Your task to perform on an android device: turn on wifi Image 0: 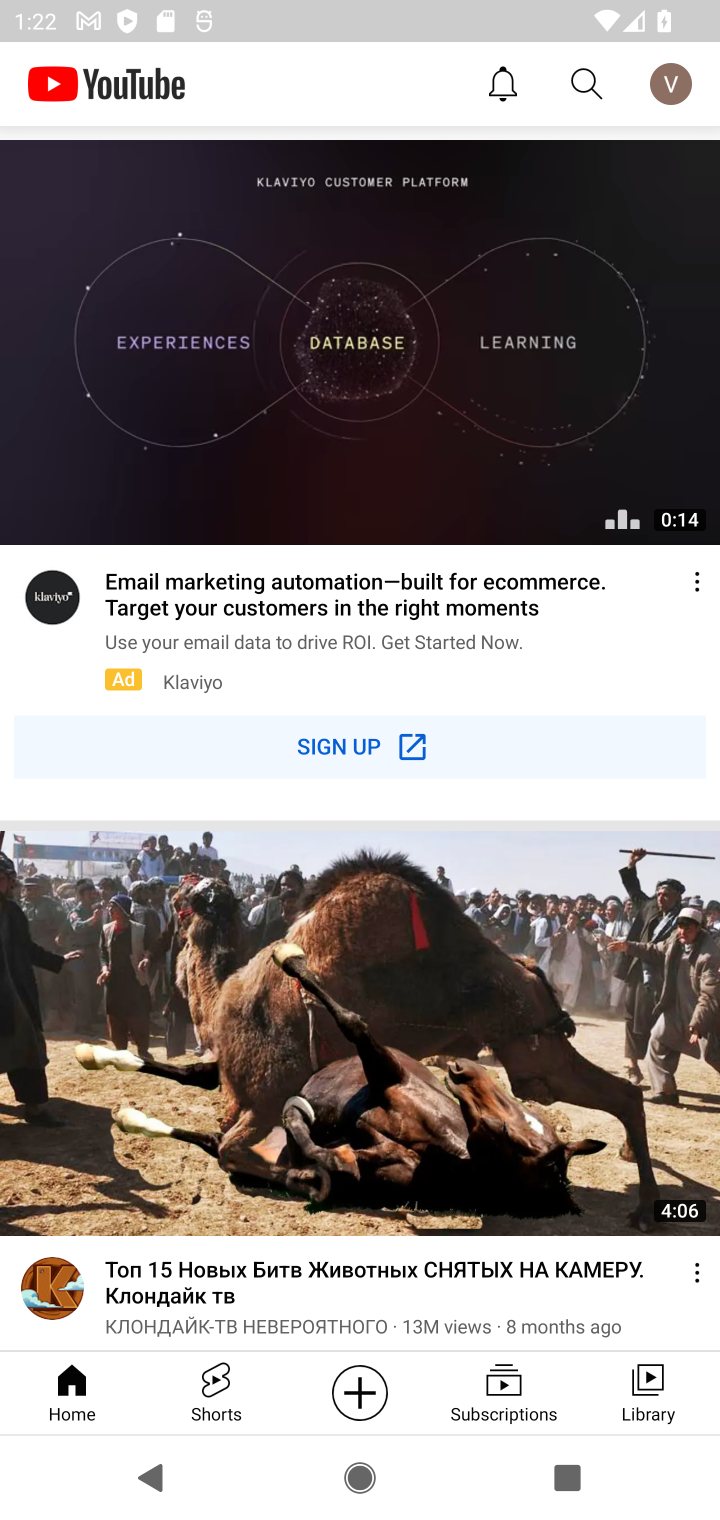
Step 0: press home button
Your task to perform on an android device: turn on wifi Image 1: 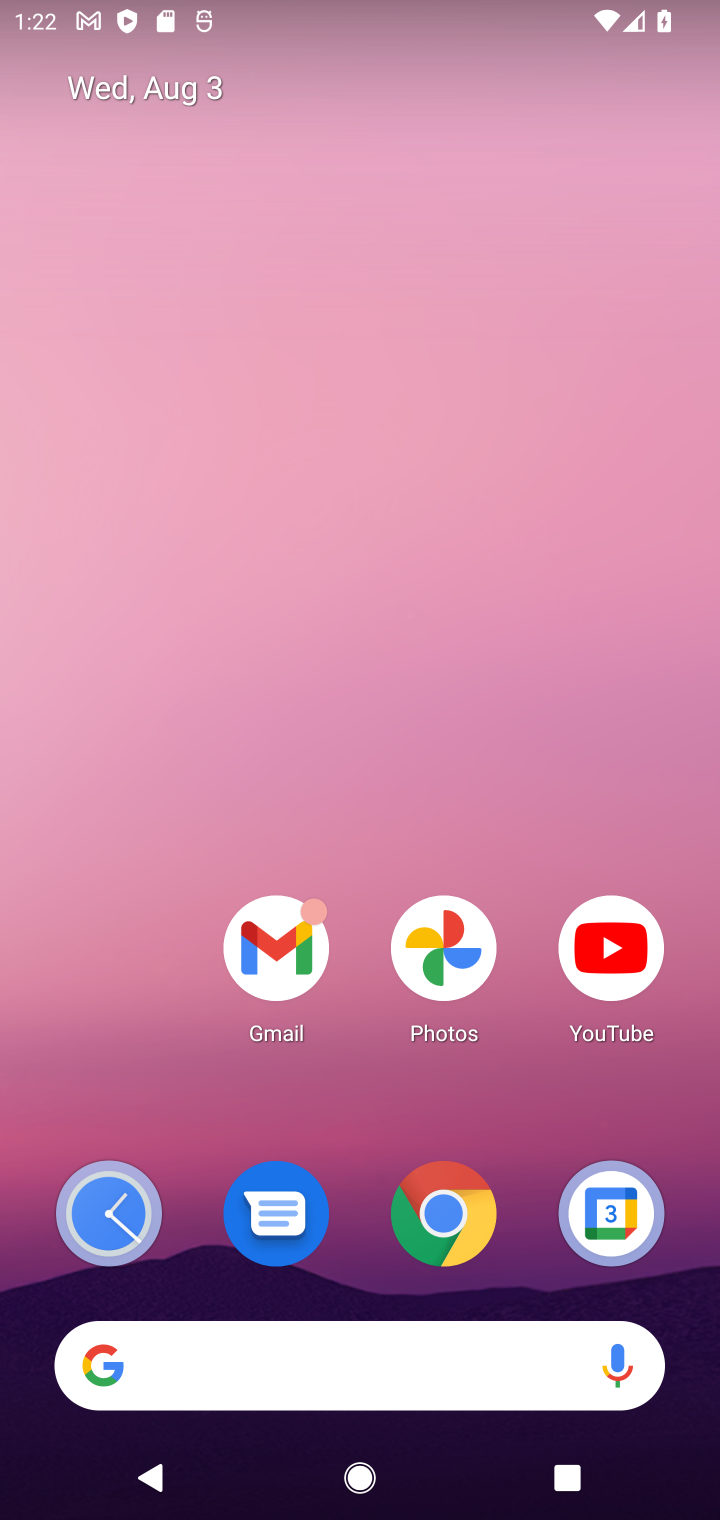
Step 1: drag from (398, 1242) to (498, 2)
Your task to perform on an android device: turn on wifi Image 2: 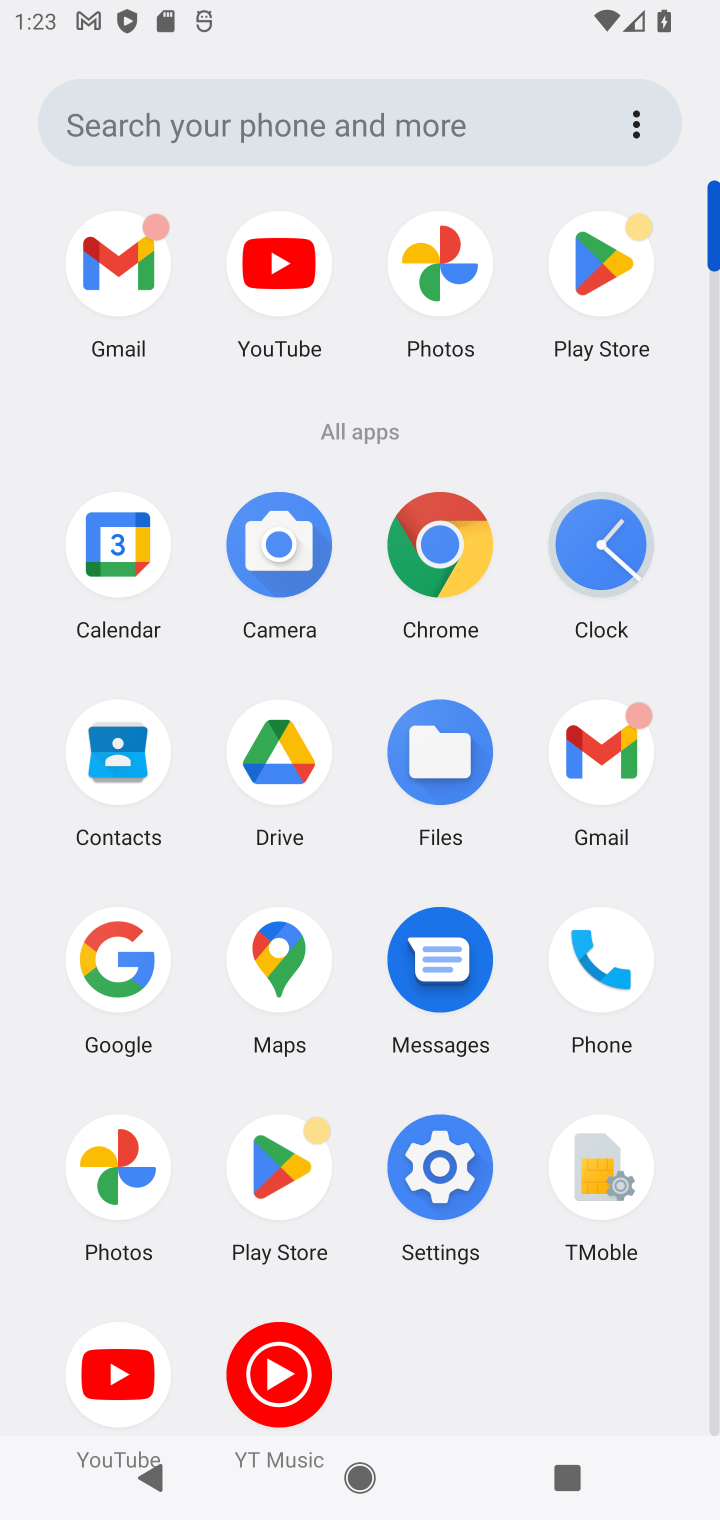
Step 2: click (419, 1178)
Your task to perform on an android device: turn on wifi Image 3: 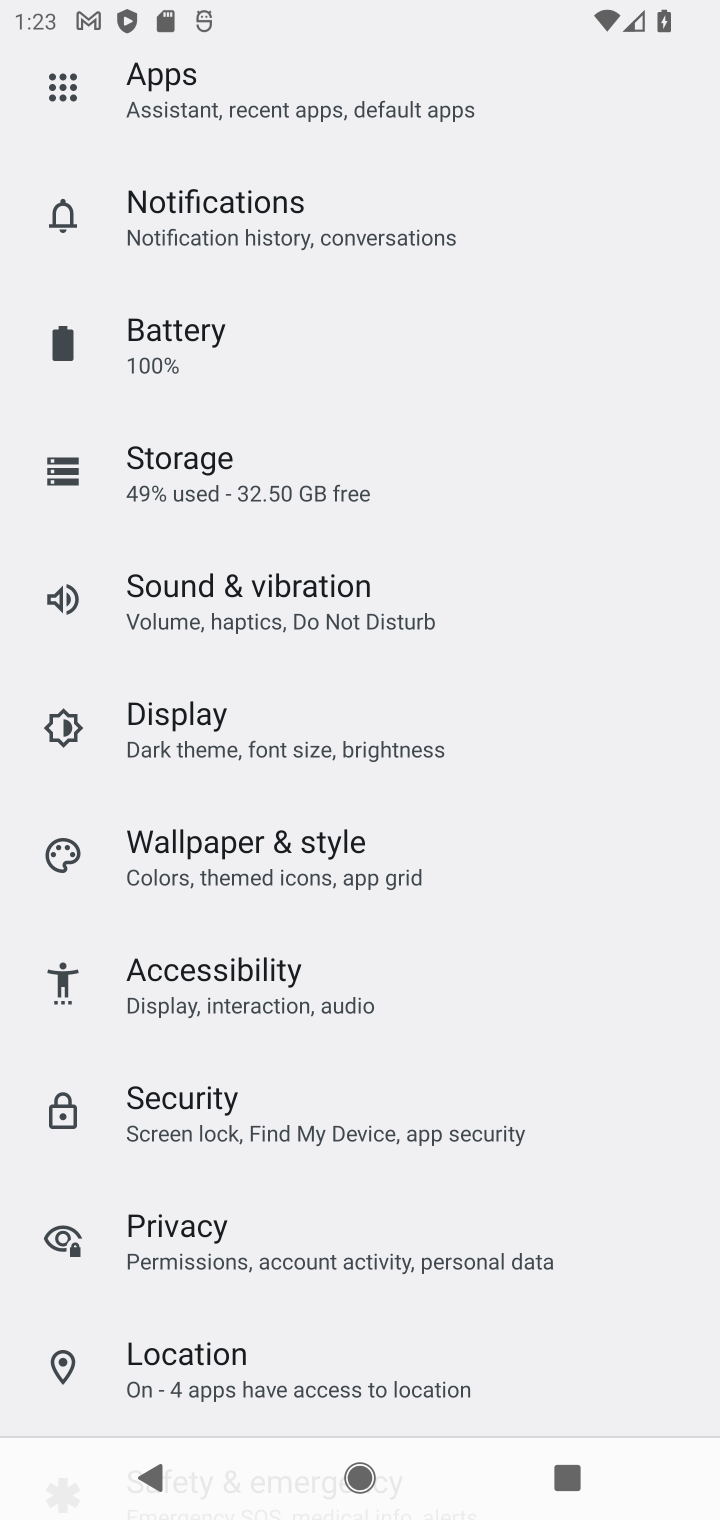
Step 3: drag from (288, 371) to (359, 1463)
Your task to perform on an android device: turn on wifi Image 4: 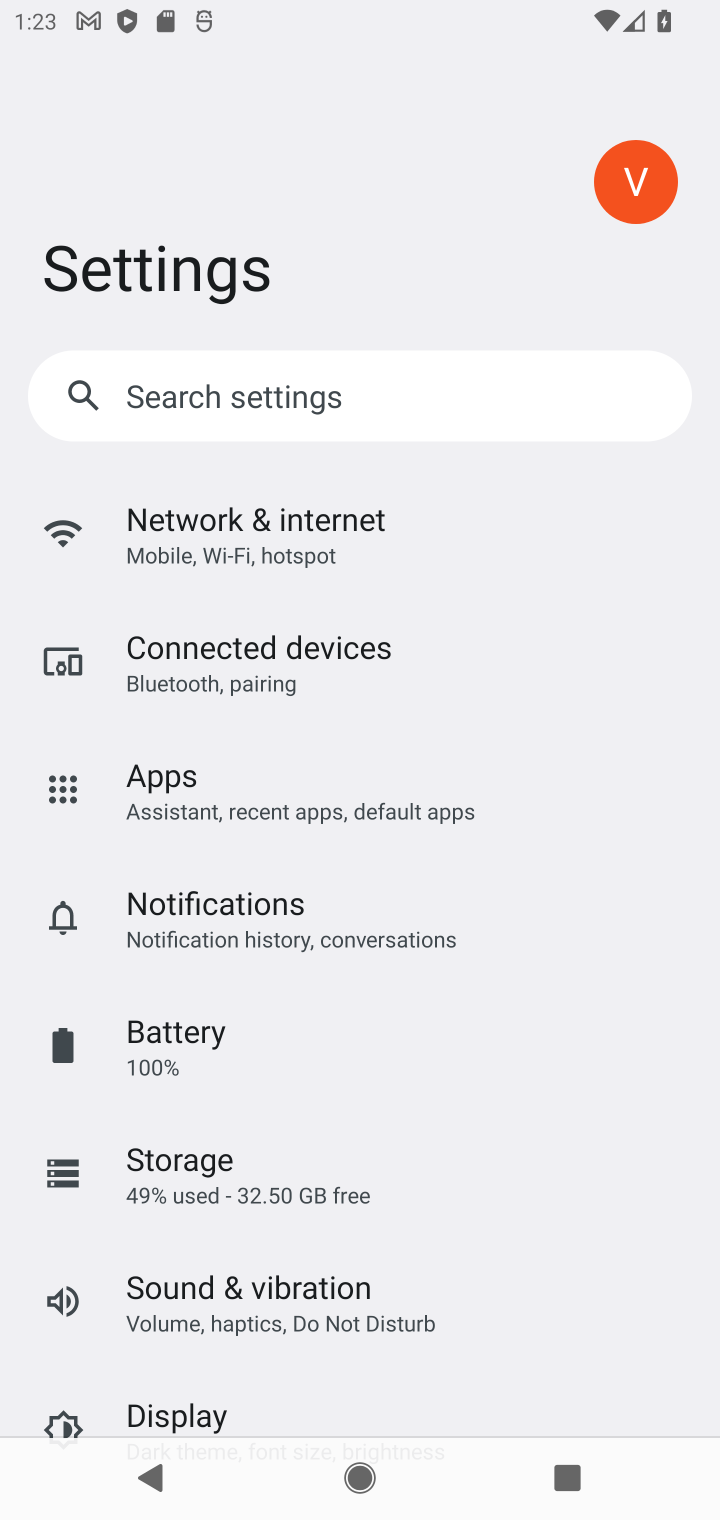
Step 4: click (263, 519)
Your task to perform on an android device: turn on wifi Image 5: 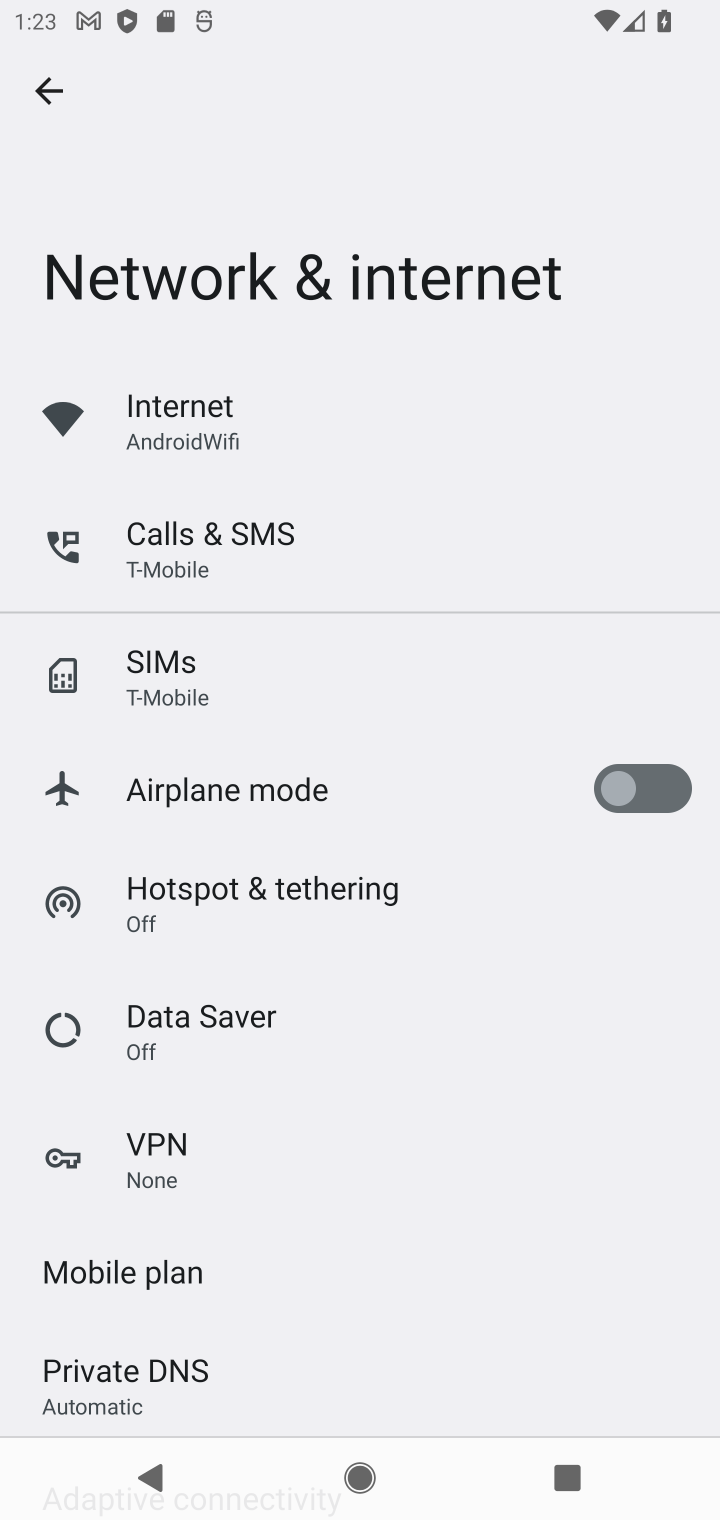
Step 5: click (247, 418)
Your task to perform on an android device: turn on wifi Image 6: 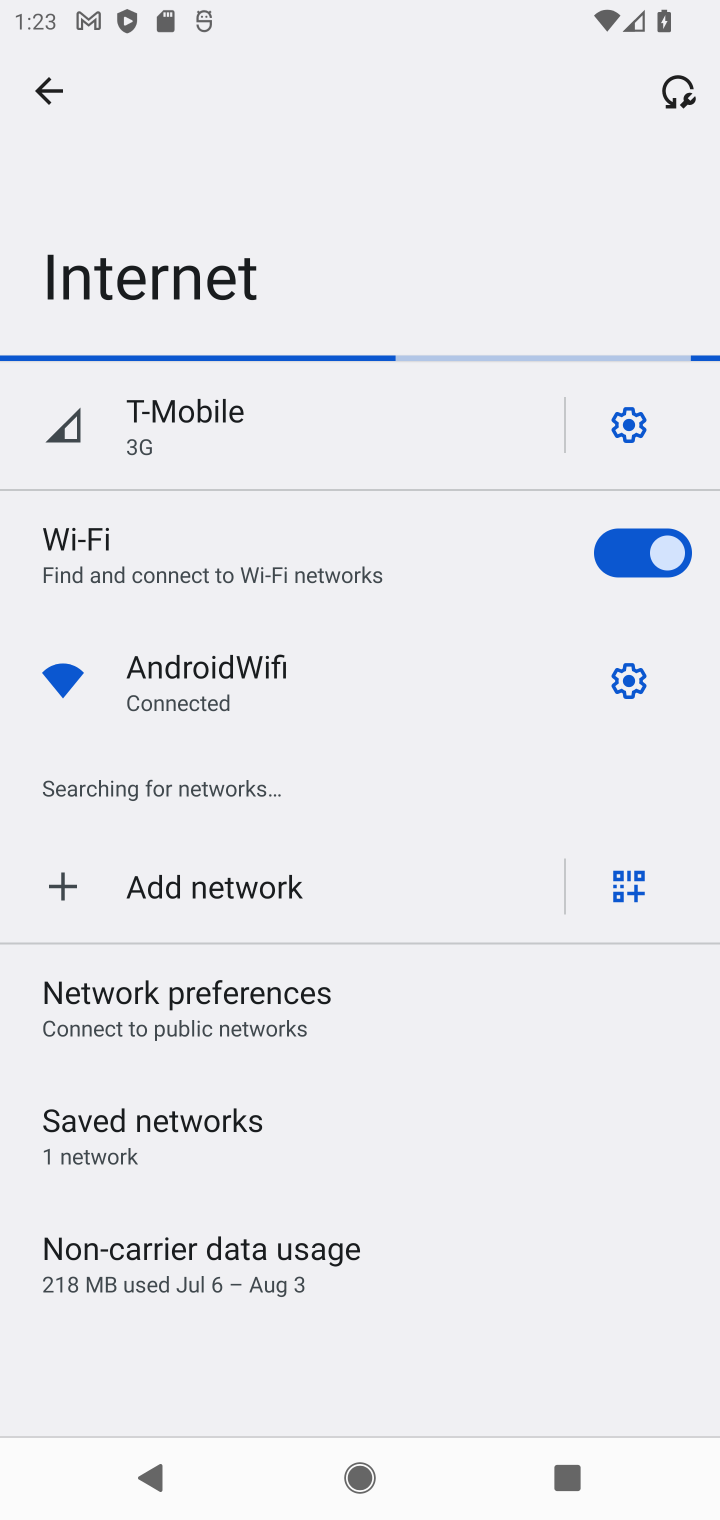
Step 6: task complete